Your task to perform on an android device: Open Google Chrome and click the shortcut for Amazon.com Image 0: 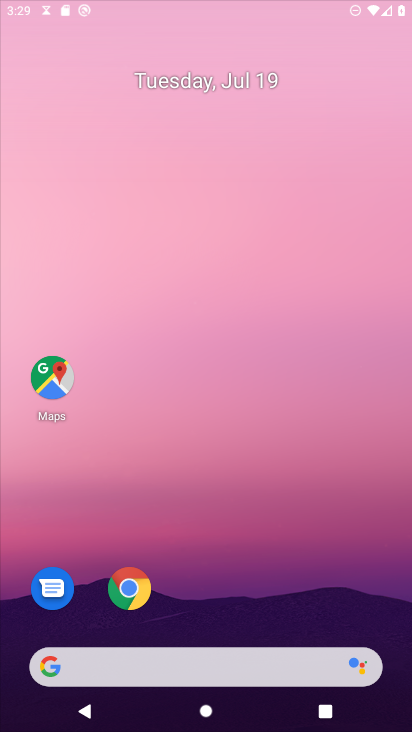
Step 0: press home button
Your task to perform on an android device: Open Google Chrome and click the shortcut for Amazon.com Image 1: 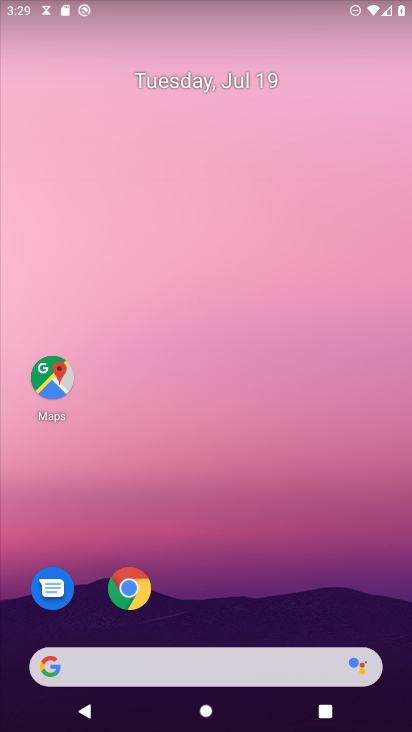
Step 1: click (130, 579)
Your task to perform on an android device: Open Google Chrome and click the shortcut for Amazon.com Image 2: 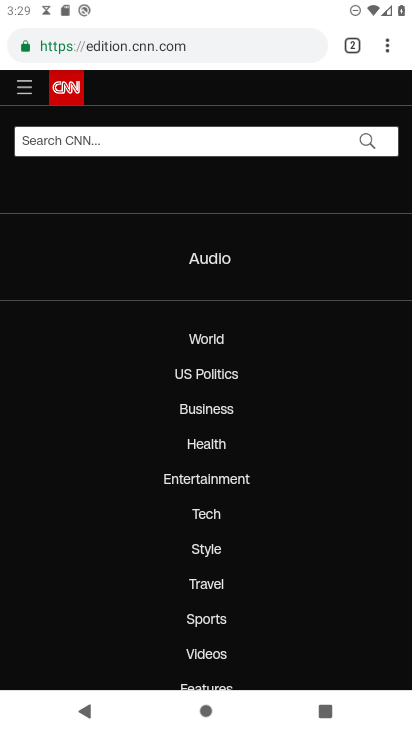
Step 2: click (138, 50)
Your task to perform on an android device: Open Google Chrome and click the shortcut for Amazon.com Image 3: 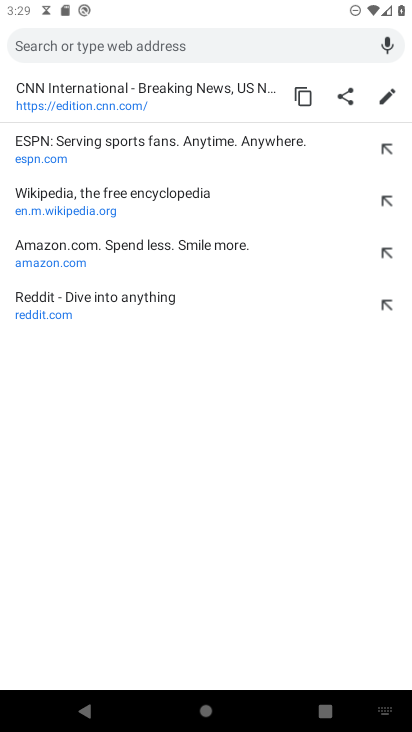
Step 3: click (81, 97)
Your task to perform on an android device: Open Google Chrome and click the shortcut for Amazon.com Image 4: 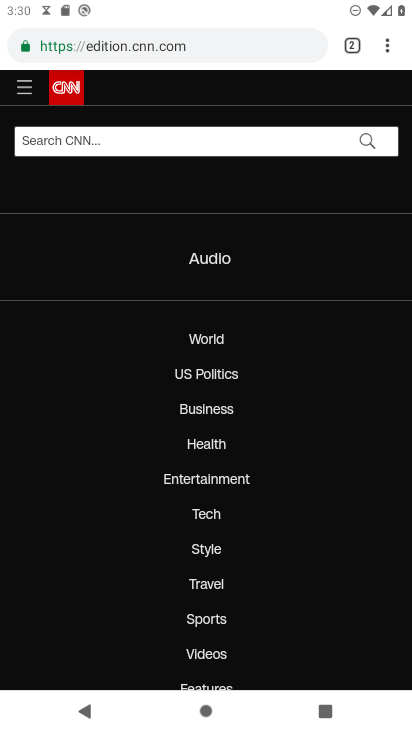
Step 4: click (344, 52)
Your task to perform on an android device: Open Google Chrome and click the shortcut for Amazon.com Image 5: 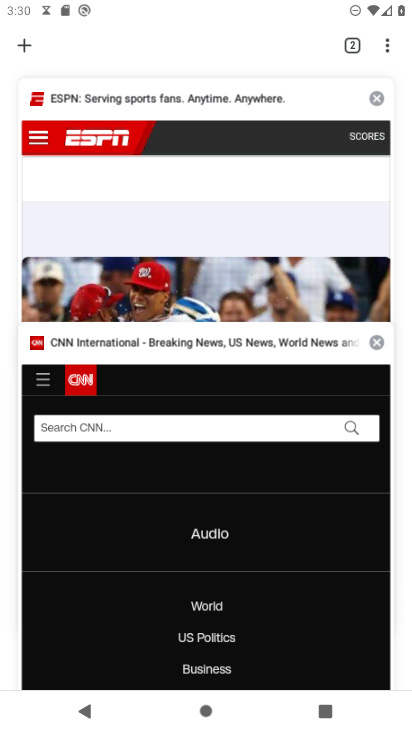
Step 5: click (19, 39)
Your task to perform on an android device: Open Google Chrome and click the shortcut for Amazon.com Image 6: 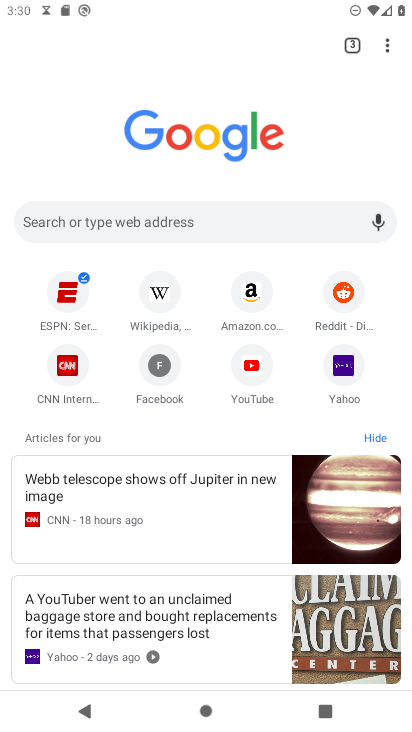
Step 6: click (238, 315)
Your task to perform on an android device: Open Google Chrome and click the shortcut for Amazon.com Image 7: 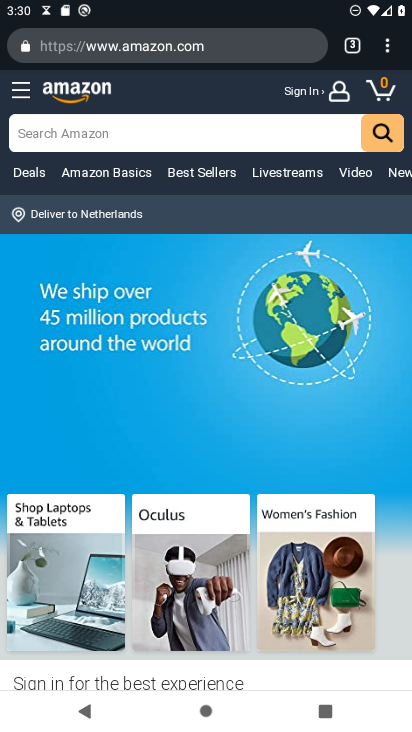
Step 7: task complete